Your task to perform on an android device: Search for vegetarian restaurants on Maps Image 0: 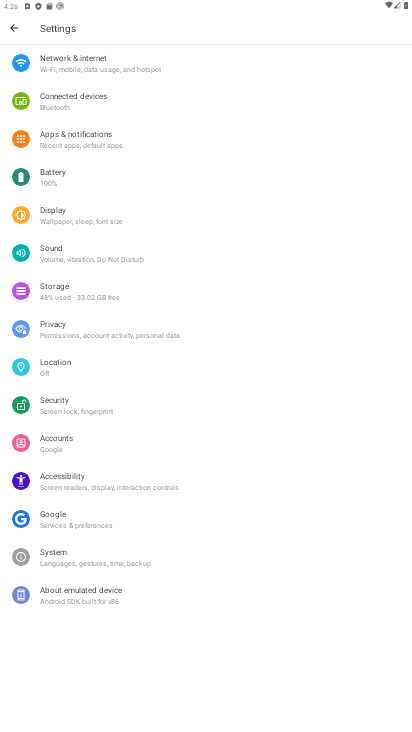
Step 0: press home button
Your task to perform on an android device: Search for vegetarian restaurants on Maps Image 1: 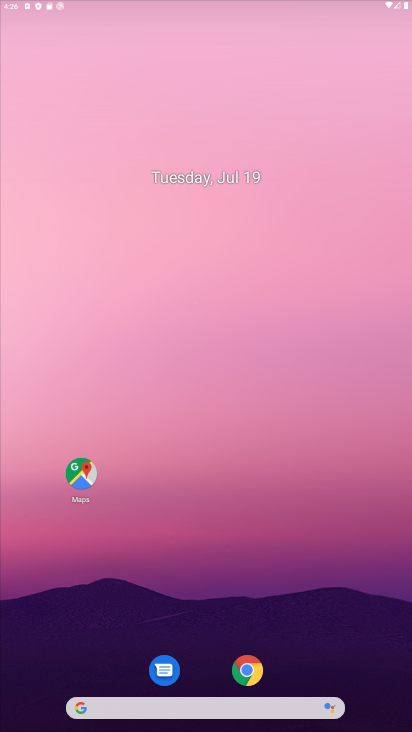
Step 1: drag from (326, 681) to (358, 143)
Your task to perform on an android device: Search for vegetarian restaurants on Maps Image 2: 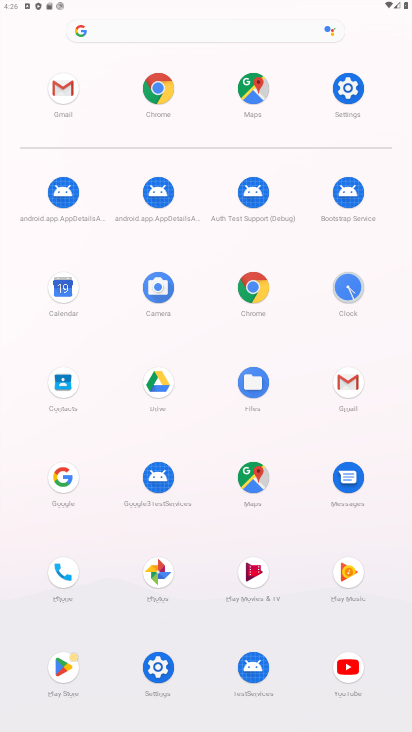
Step 2: click (258, 471)
Your task to perform on an android device: Search for vegetarian restaurants on Maps Image 3: 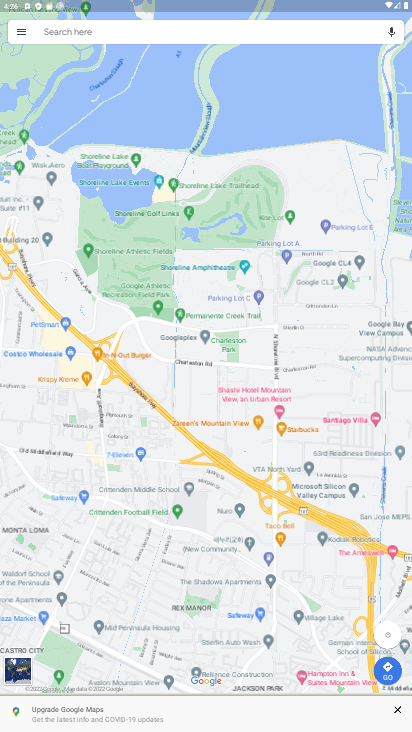
Step 3: click (172, 31)
Your task to perform on an android device: Search for vegetarian restaurants on Maps Image 4: 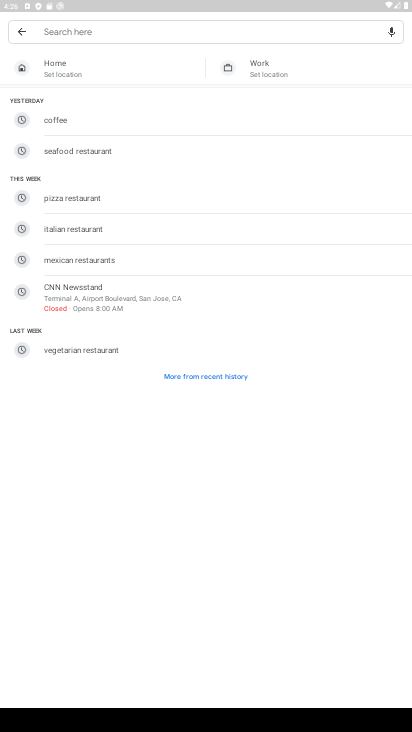
Step 4: click (103, 346)
Your task to perform on an android device: Search for vegetarian restaurants on Maps Image 5: 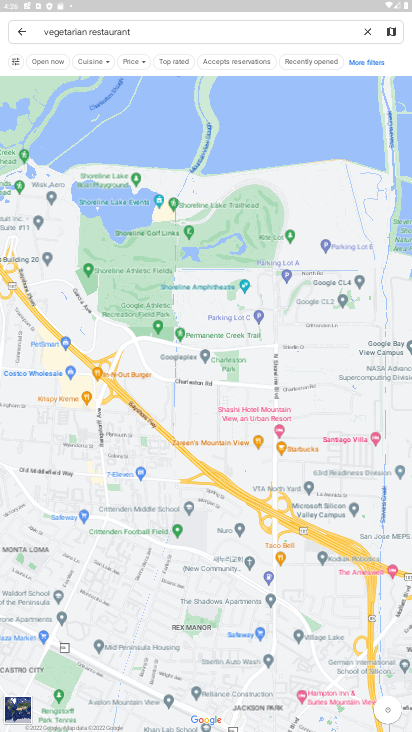
Step 5: click (160, 25)
Your task to perform on an android device: Search for vegetarian restaurants on Maps Image 6: 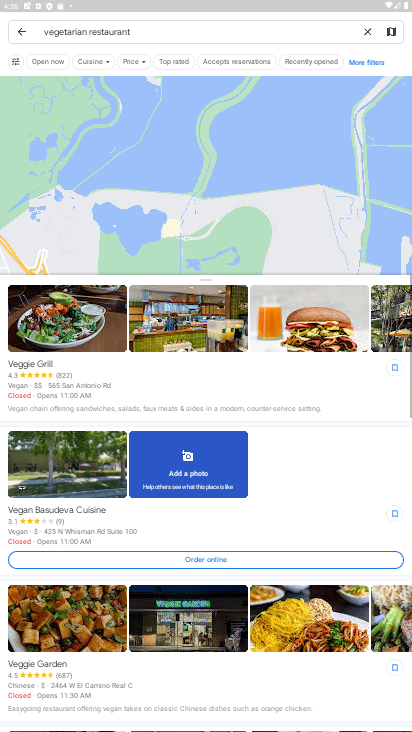
Step 6: click (167, 29)
Your task to perform on an android device: Search for vegetarian restaurants on Maps Image 7: 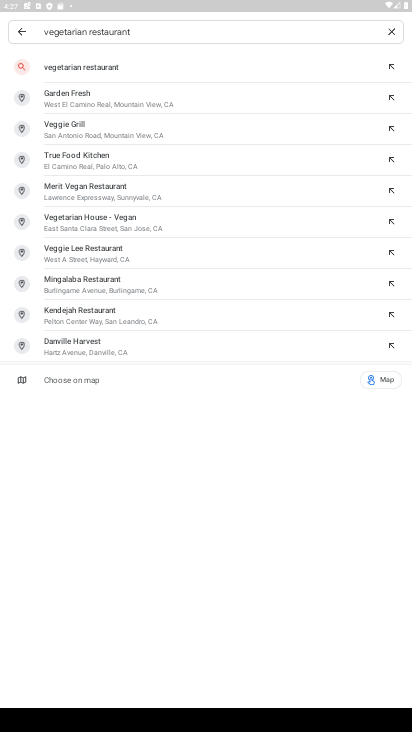
Step 7: click (136, 66)
Your task to perform on an android device: Search for vegetarian restaurants on Maps Image 8: 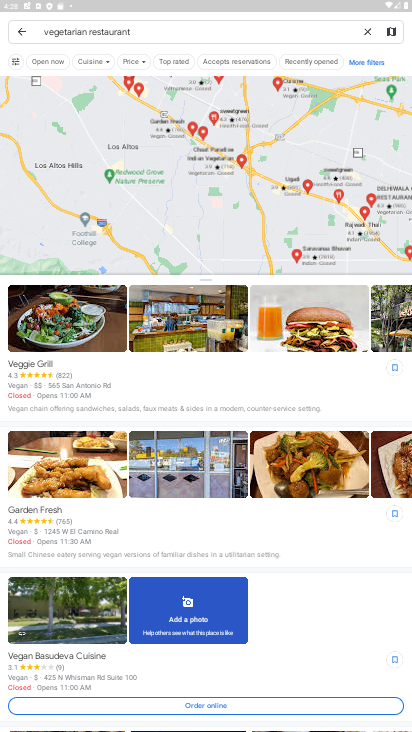
Step 8: task complete